Your task to perform on an android device: Open calendar and show me the fourth week of next month Image 0: 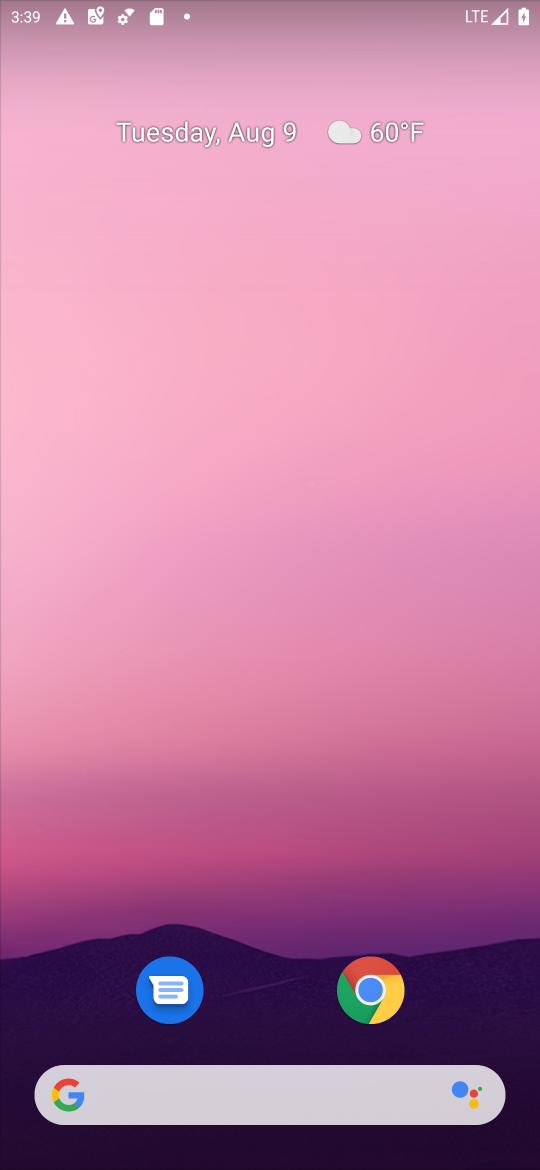
Step 0: drag from (234, 1069) to (332, 25)
Your task to perform on an android device: Open calendar and show me the fourth week of next month Image 1: 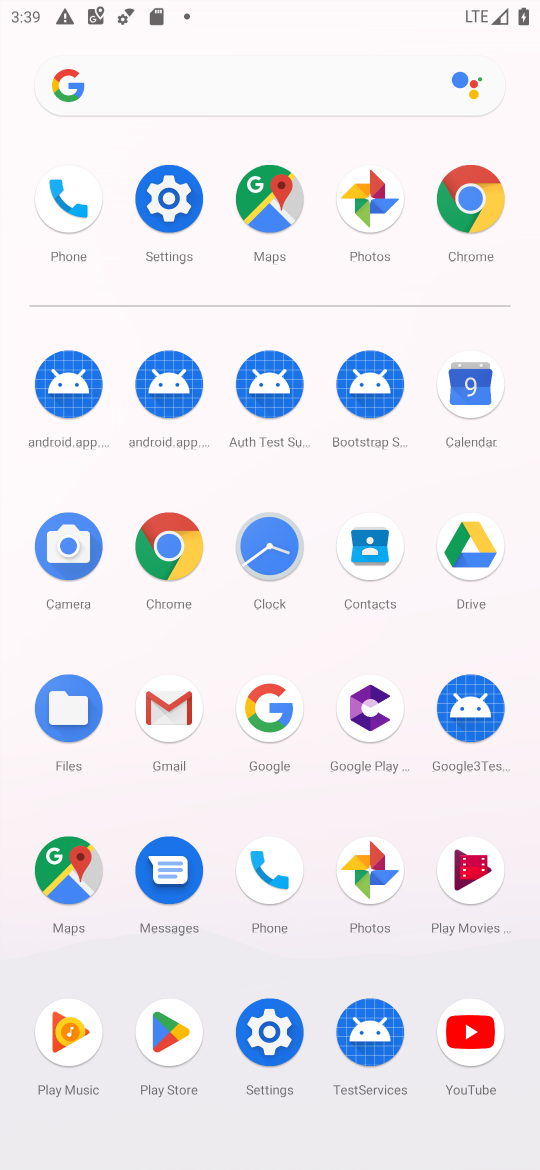
Step 1: click (468, 390)
Your task to perform on an android device: Open calendar and show me the fourth week of next month Image 2: 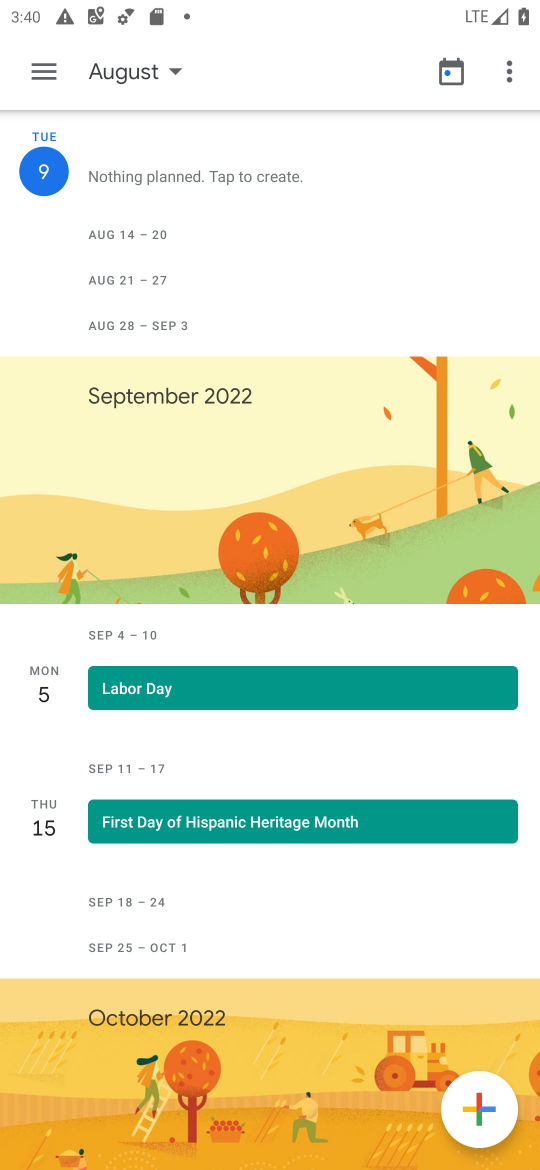
Step 2: click (186, 75)
Your task to perform on an android device: Open calendar and show me the fourth week of next month Image 3: 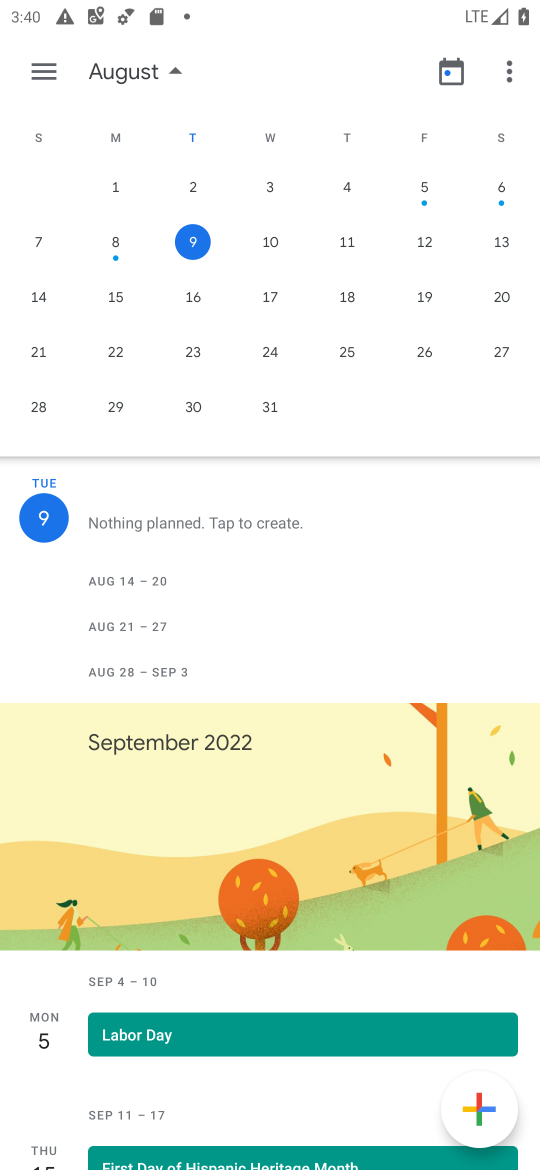
Step 3: drag from (493, 272) to (0, 268)
Your task to perform on an android device: Open calendar and show me the fourth week of next month Image 4: 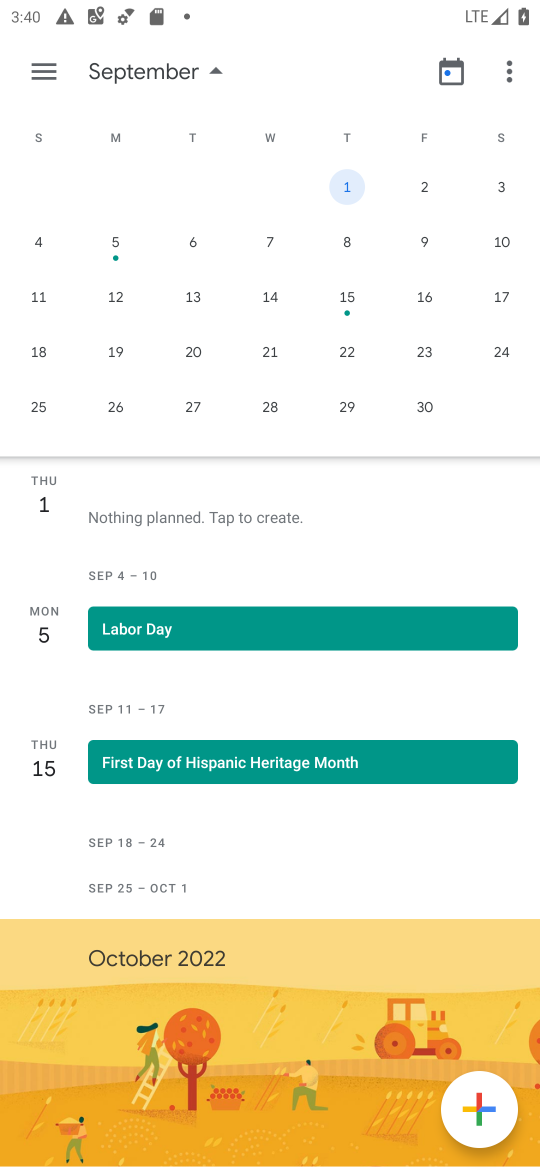
Step 4: click (263, 339)
Your task to perform on an android device: Open calendar and show me the fourth week of next month Image 5: 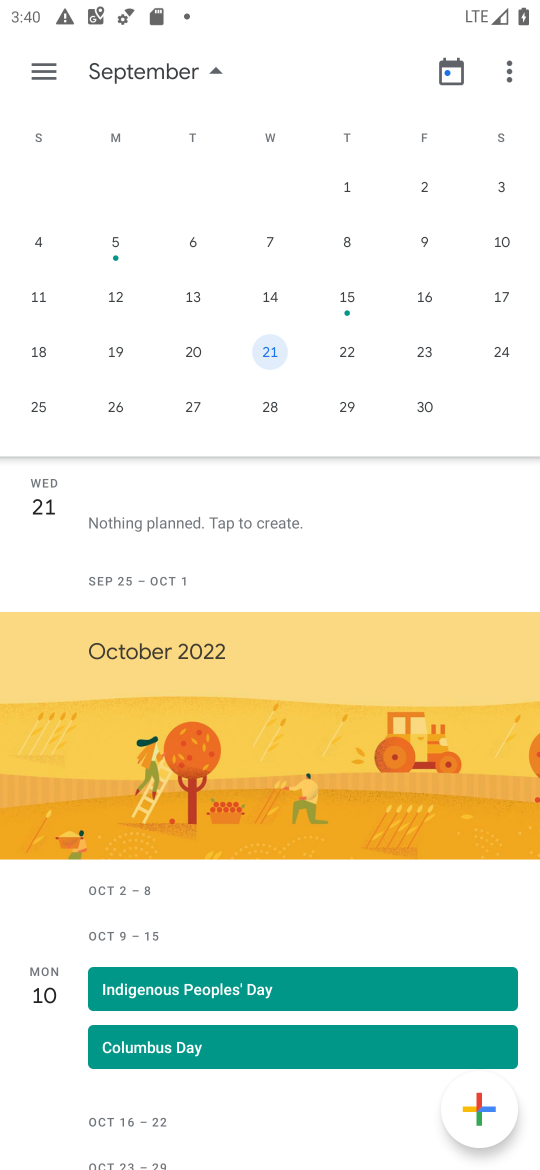
Step 5: task complete